Your task to perform on an android device: Open internet settings Image 0: 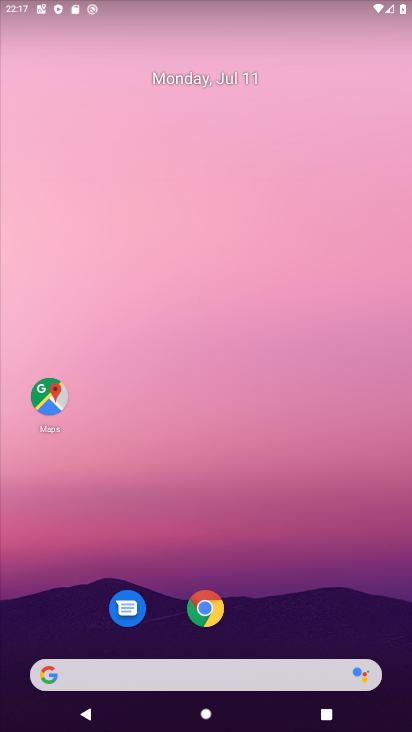
Step 0: drag from (114, 557) to (290, 5)
Your task to perform on an android device: Open internet settings Image 1: 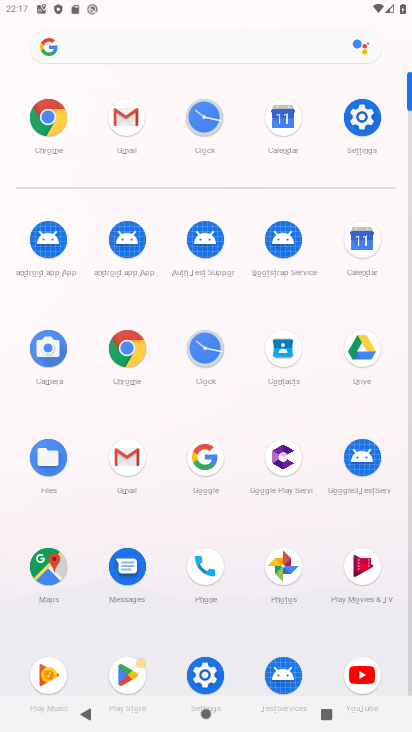
Step 1: click (195, 680)
Your task to perform on an android device: Open internet settings Image 2: 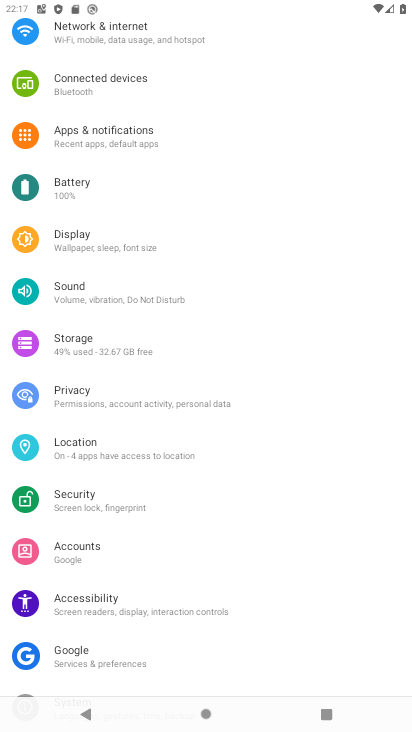
Step 2: drag from (175, 358) to (172, 548)
Your task to perform on an android device: Open internet settings Image 3: 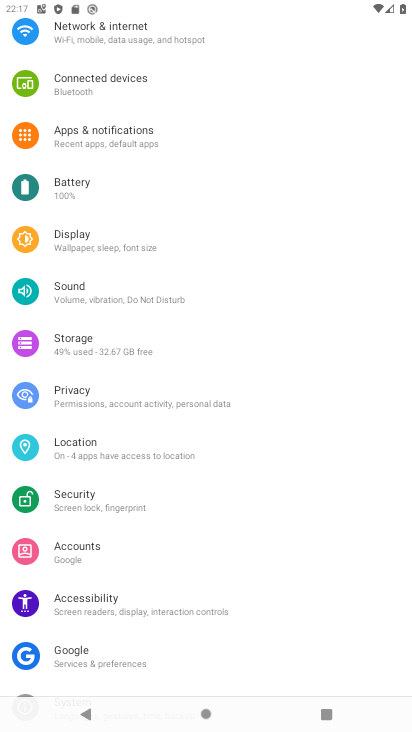
Step 3: click (122, 21)
Your task to perform on an android device: Open internet settings Image 4: 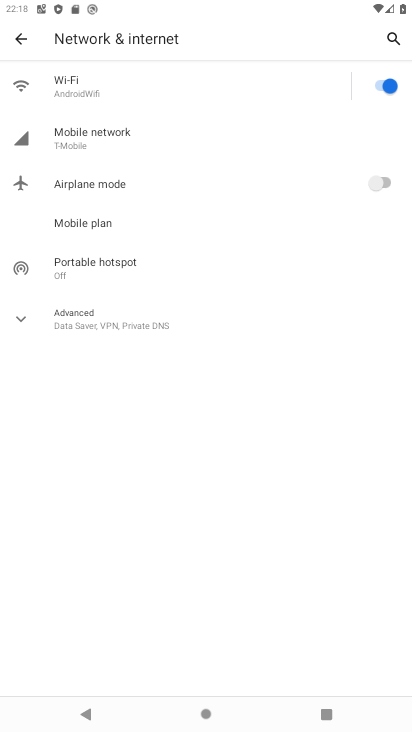
Step 4: task complete